Your task to perform on an android device: Go to Yahoo.com Image 0: 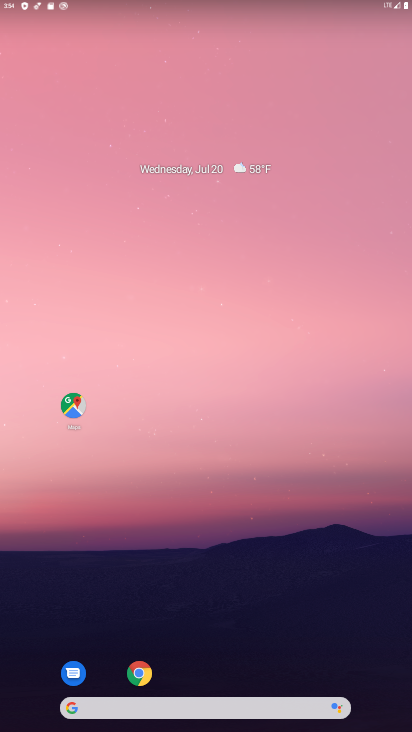
Step 0: click (161, 709)
Your task to perform on an android device: Go to Yahoo.com Image 1: 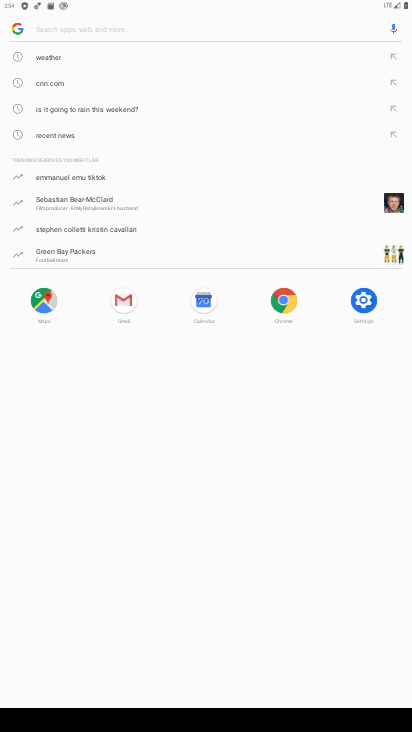
Step 1: type "Yahoo.com"
Your task to perform on an android device: Go to Yahoo.com Image 2: 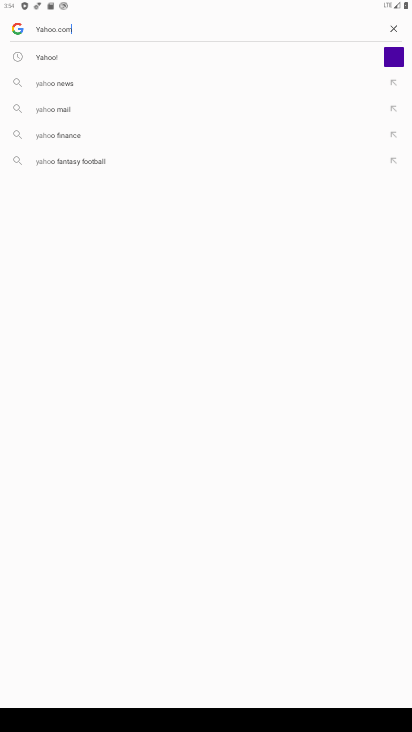
Step 2: type ""
Your task to perform on an android device: Go to Yahoo.com Image 3: 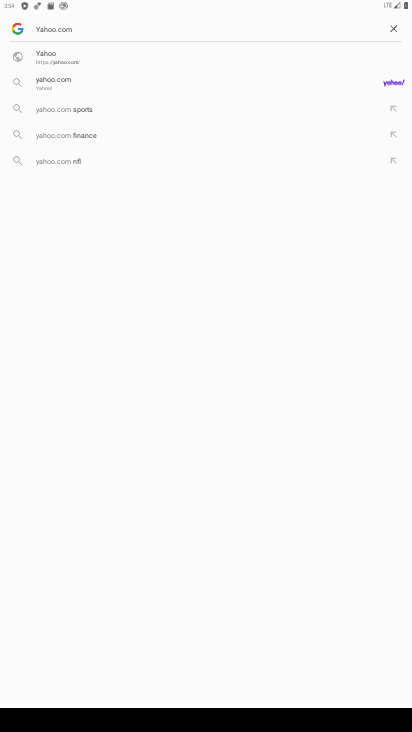
Step 3: press enter
Your task to perform on an android device: Go to Yahoo.com Image 4: 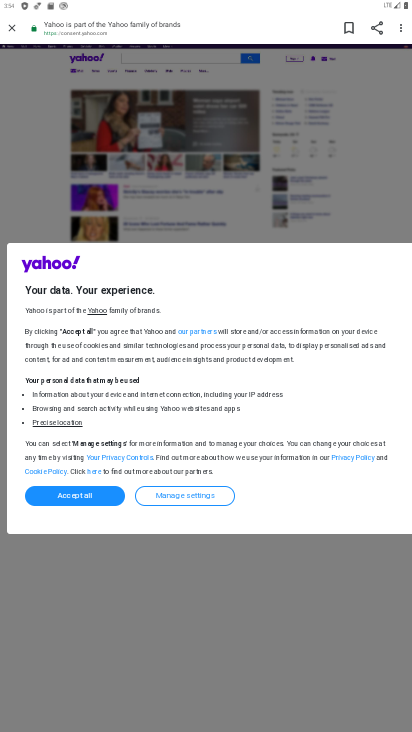
Step 4: task complete